Your task to perform on an android device: set the timer Image 0: 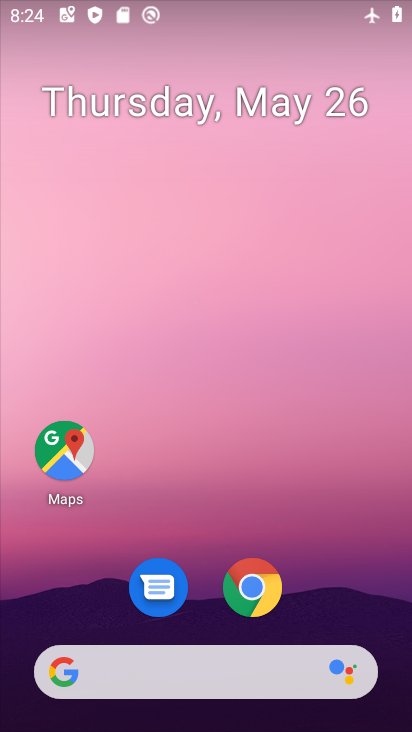
Step 0: drag from (207, 626) to (212, 217)
Your task to perform on an android device: set the timer Image 1: 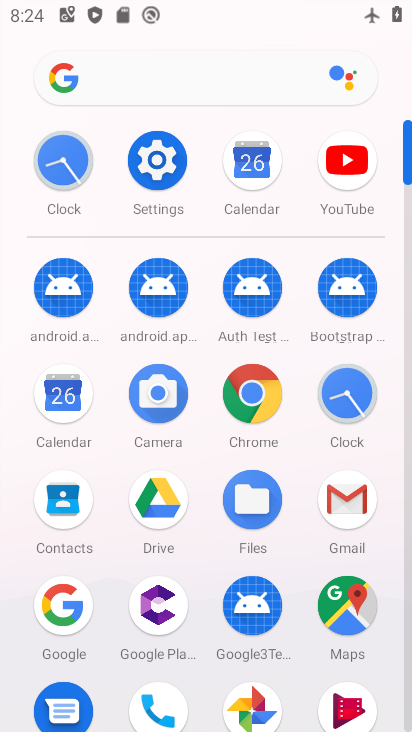
Step 1: click (68, 162)
Your task to perform on an android device: set the timer Image 2: 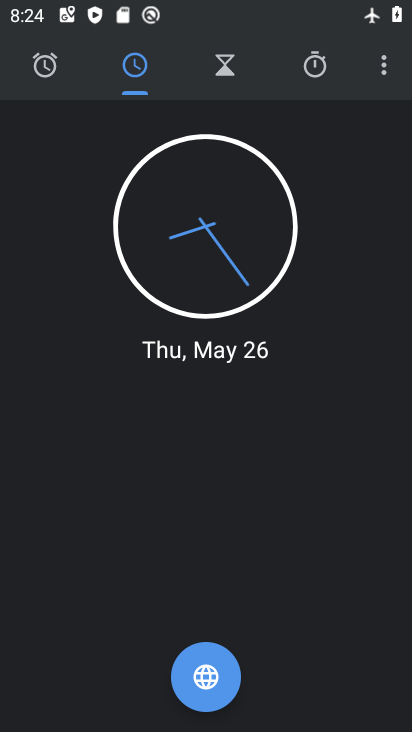
Step 2: click (230, 54)
Your task to perform on an android device: set the timer Image 3: 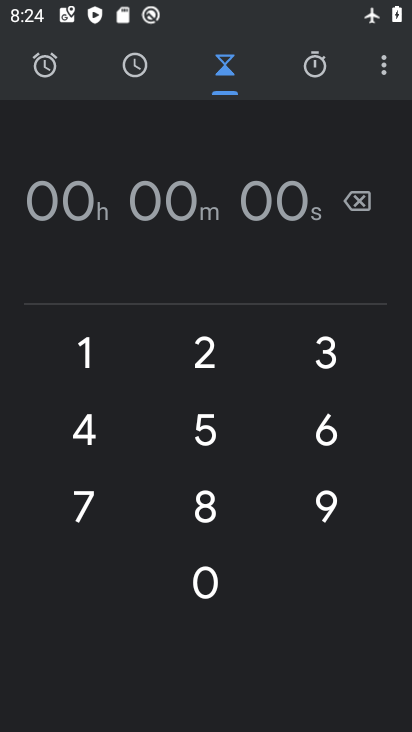
Step 3: click (274, 208)
Your task to perform on an android device: set the timer Image 4: 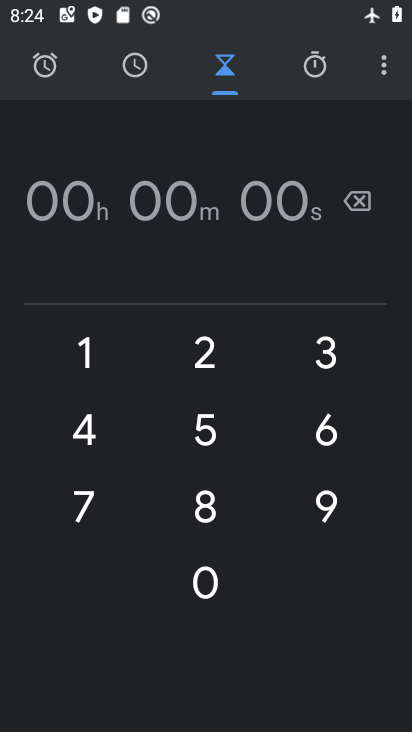
Step 4: type "11"
Your task to perform on an android device: set the timer Image 5: 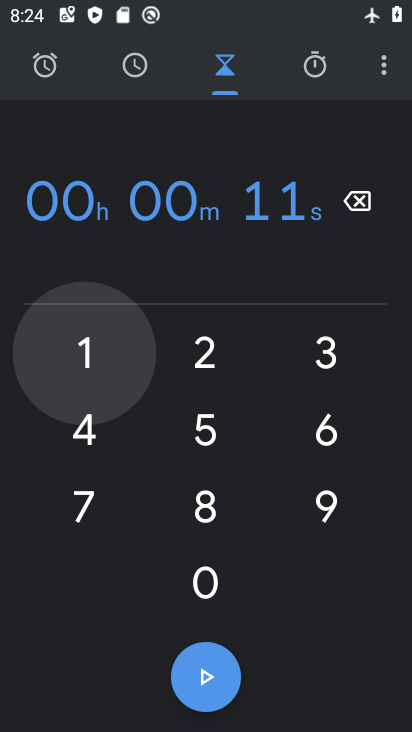
Step 5: click (217, 697)
Your task to perform on an android device: set the timer Image 6: 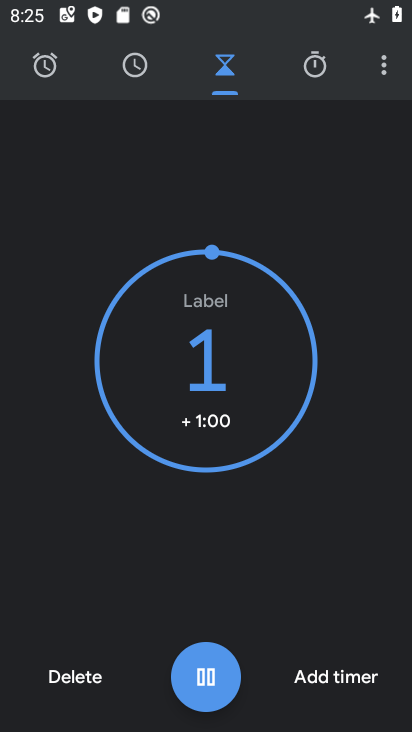
Step 6: task complete